Your task to perform on an android device: check google app version Image 0: 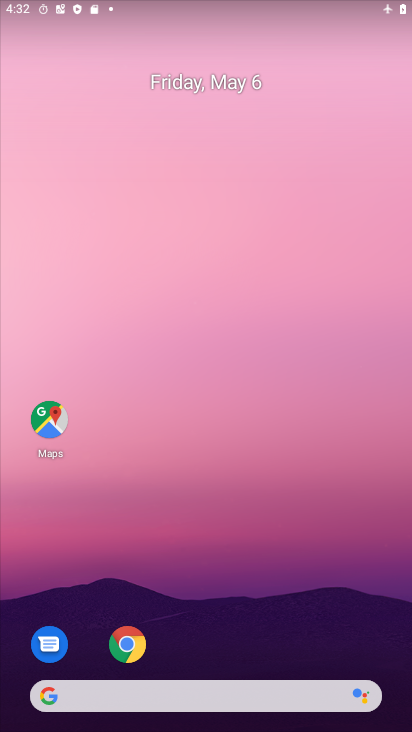
Step 0: drag from (237, 522) to (116, 136)
Your task to perform on an android device: check google app version Image 1: 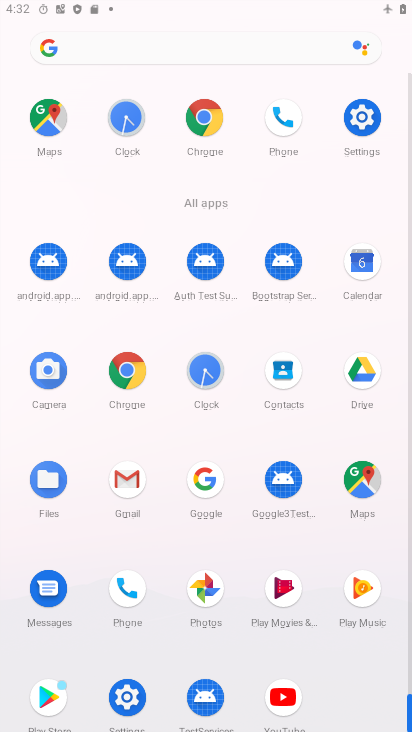
Step 1: drag from (304, 592) to (219, 25)
Your task to perform on an android device: check google app version Image 2: 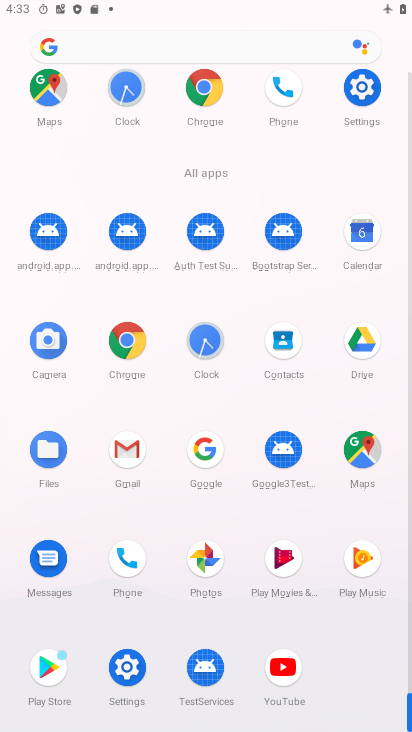
Step 2: click (207, 459)
Your task to perform on an android device: check google app version Image 3: 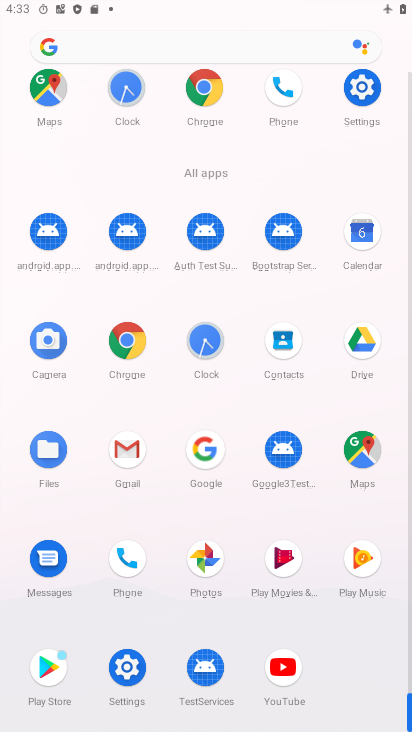
Step 3: click (201, 457)
Your task to perform on an android device: check google app version Image 4: 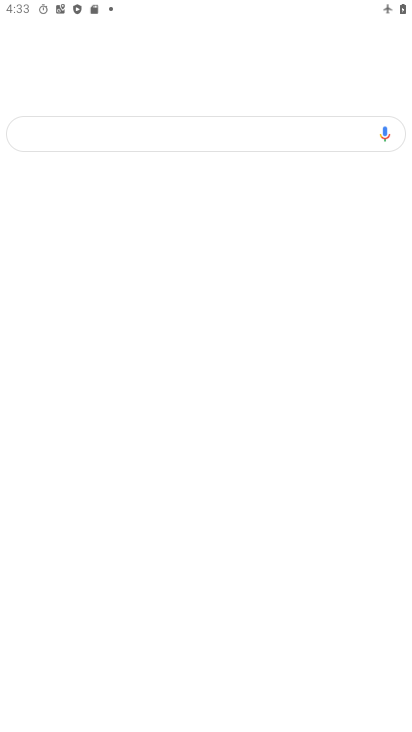
Step 4: click (202, 452)
Your task to perform on an android device: check google app version Image 5: 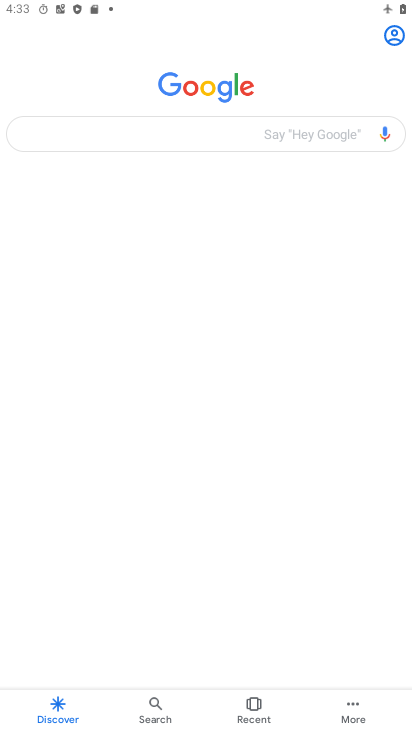
Step 5: click (346, 713)
Your task to perform on an android device: check google app version Image 6: 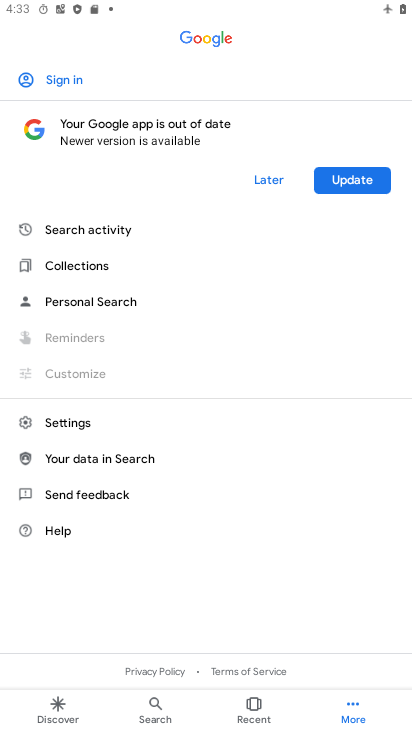
Step 6: click (351, 704)
Your task to perform on an android device: check google app version Image 7: 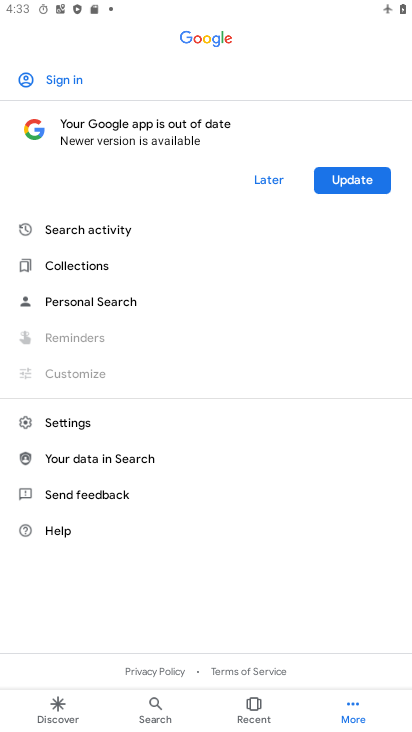
Step 7: click (351, 704)
Your task to perform on an android device: check google app version Image 8: 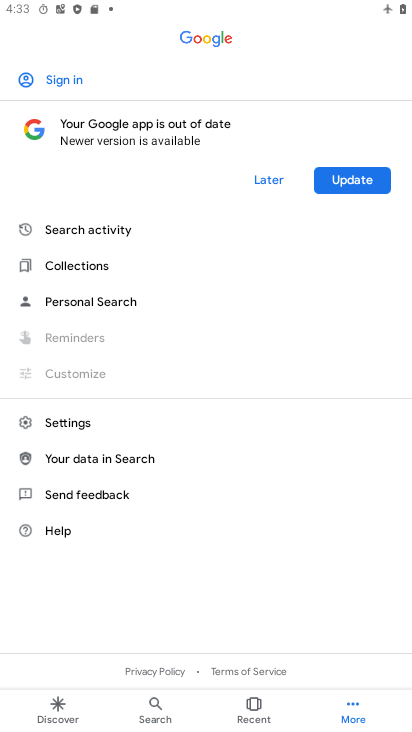
Step 8: click (67, 425)
Your task to perform on an android device: check google app version Image 9: 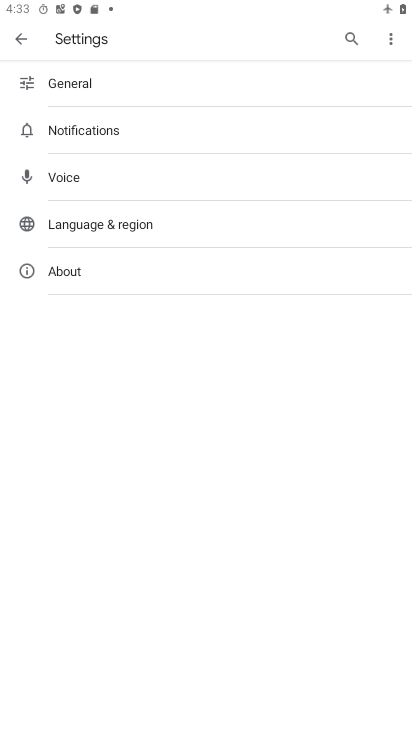
Step 9: click (66, 424)
Your task to perform on an android device: check google app version Image 10: 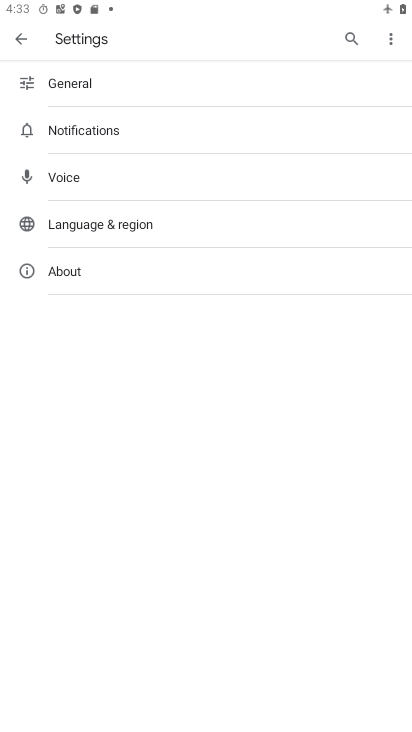
Step 10: click (69, 262)
Your task to perform on an android device: check google app version Image 11: 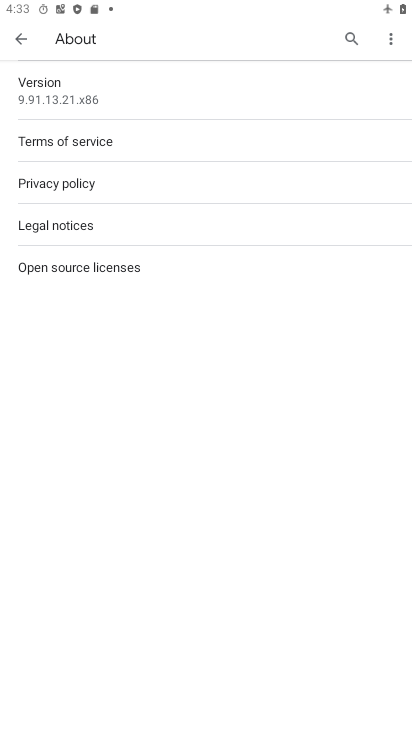
Step 11: task complete